Your task to perform on an android device: Open Chrome and go to settings Image 0: 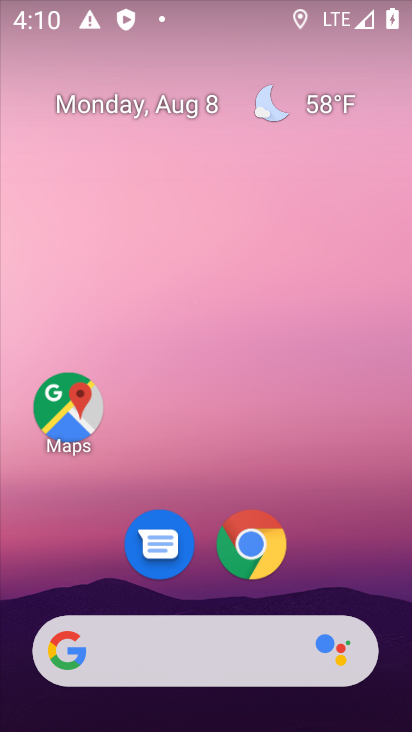
Step 0: drag from (242, 521) to (336, 12)
Your task to perform on an android device: Open Chrome and go to settings Image 1: 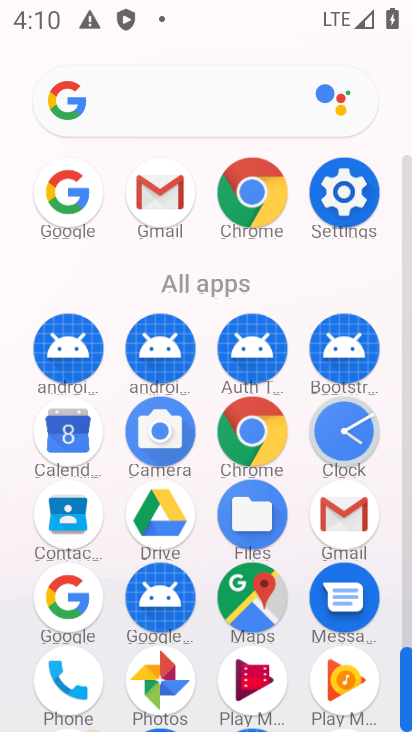
Step 1: click (264, 207)
Your task to perform on an android device: Open Chrome and go to settings Image 2: 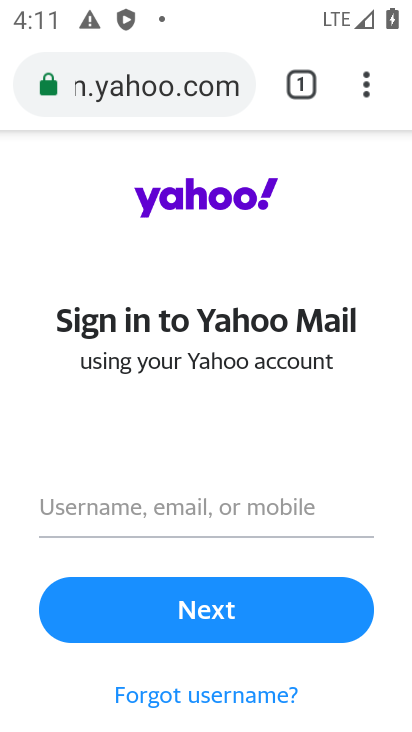
Step 2: click (367, 97)
Your task to perform on an android device: Open Chrome and go to settings Image 3: 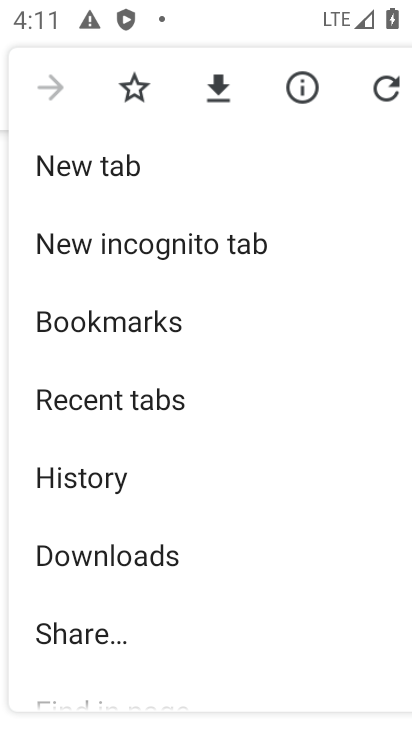
Step 3: drag from (199, 534) to (243, 52)
Your task to perform on an android device: Open Chrome and go to settings Image 4: 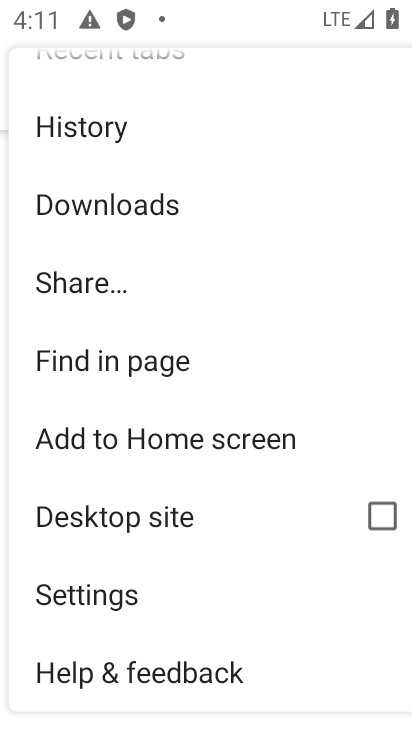
Step 4: click (105, 604)
Your task to perform on an android device: Open Chrome and go to settings Image 5: 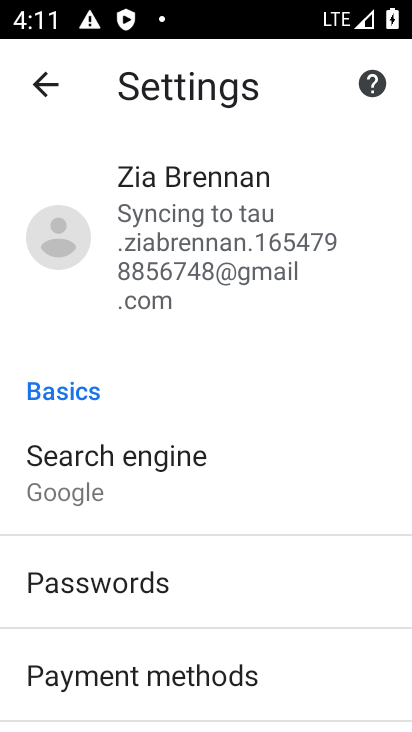
Step 5: task complete